Your task to perform on an android device: Open Chrome and go to the settings page Image 0: 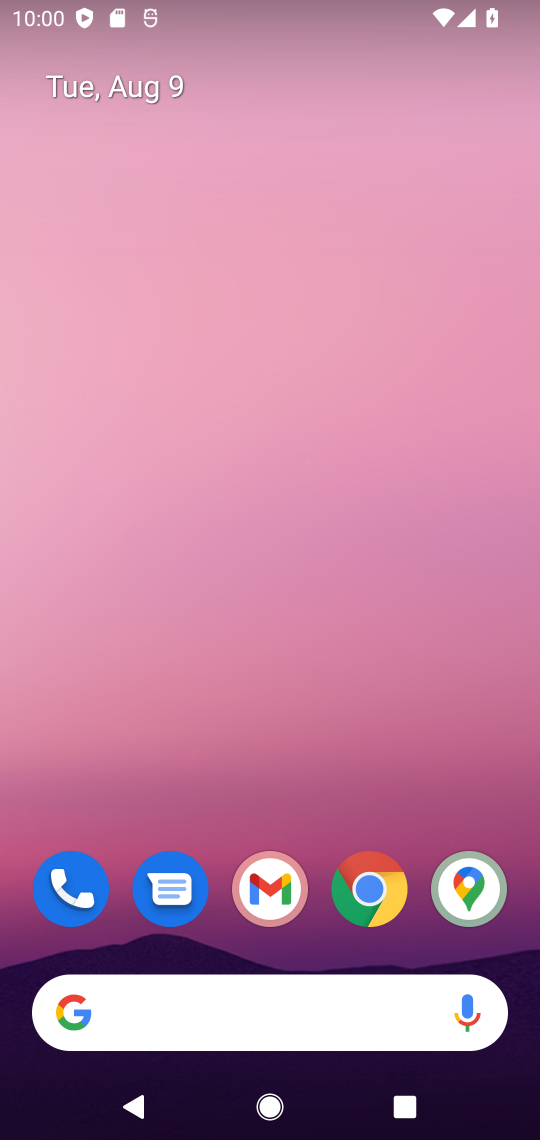
Step 0: click (386, 887)
Your task to perform on an android device: Open Chrome and go to the settings page Image 1: 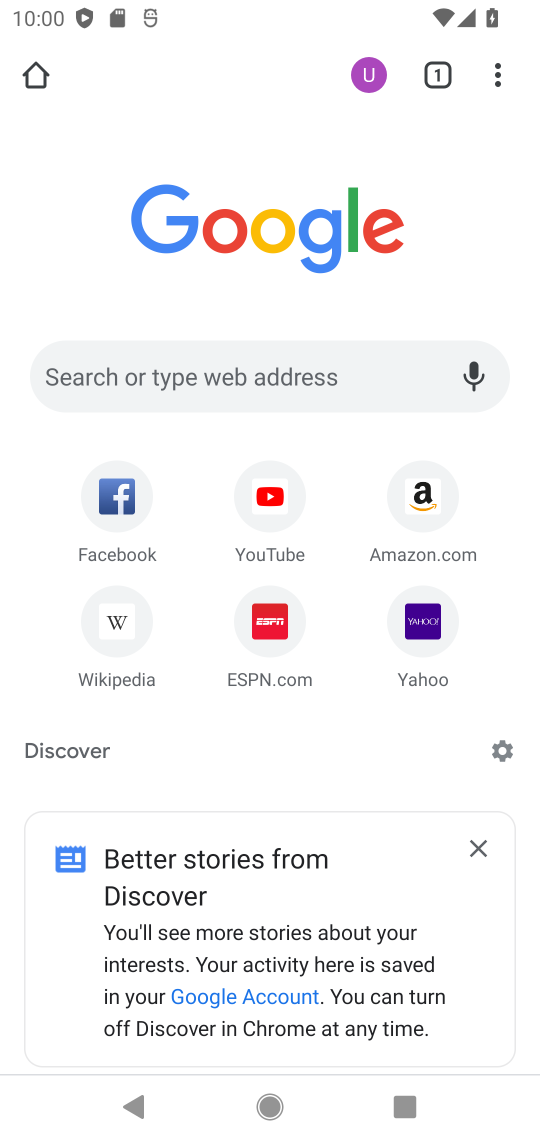
Step 1: task complete